Your task to perform on an android device: check data usage Image 0: 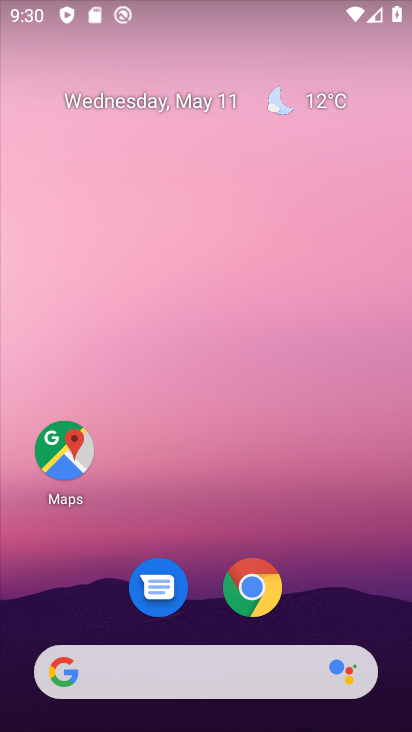
Step 0: drag from (394, 234) to (386, 6)
Your task to perform on an android device: check data usage Image 1: 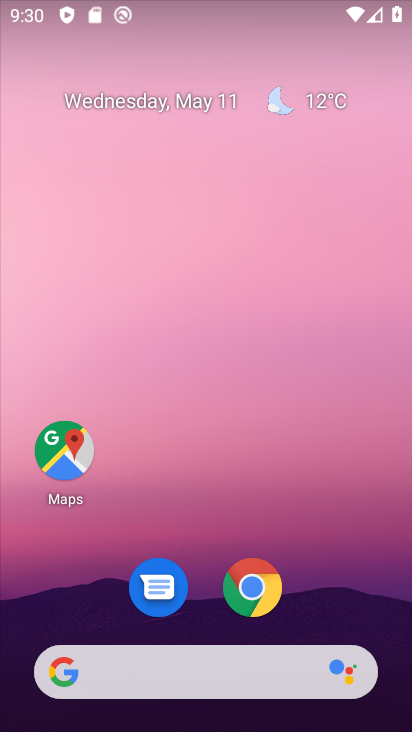
Step 1: drag from (325, 578) to (378, 7)
Your task to perform on an android device: check data usage Image 2: 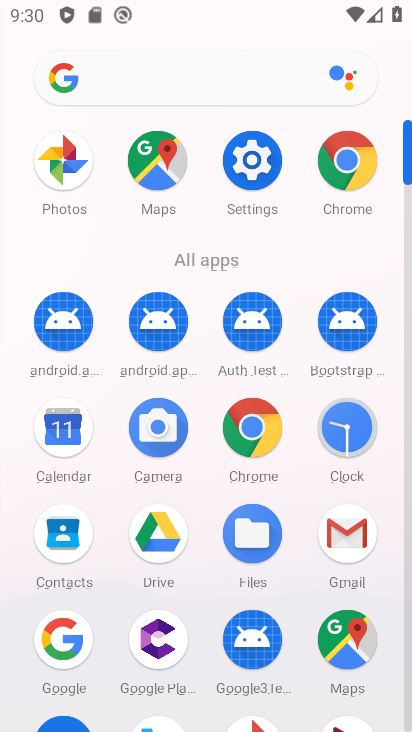
Step 2: click (246, 188)
Your task to perform on an android device: check data usage Image 3: 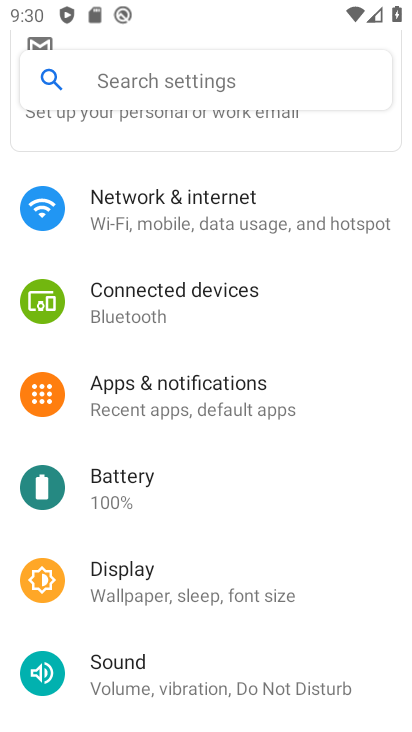
Step 3: click (180, 229)
Your task to perform on an android device: check data usage Image 4: 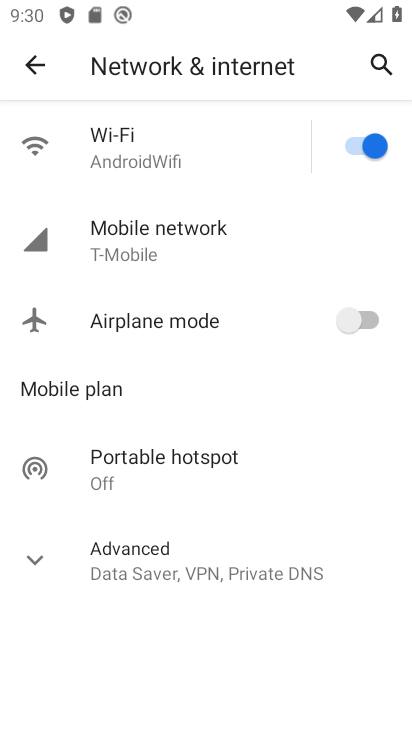
Step 4: click (172, 236)
Your task to perform on an android device: check data usage Image 5: 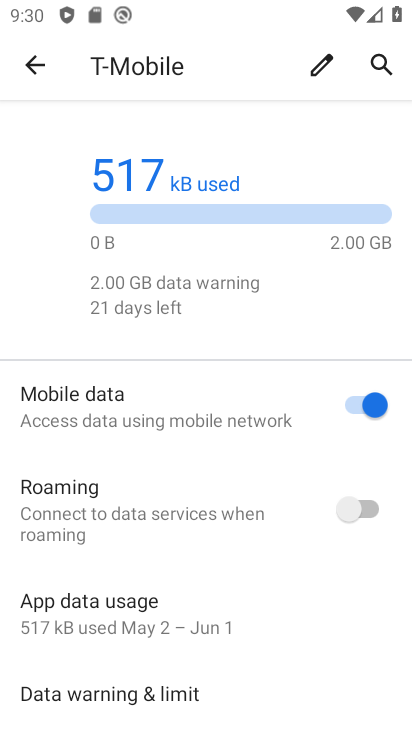
Step 5: click (124, 609)
Your task to perform on an android device: check data usage Image 6: 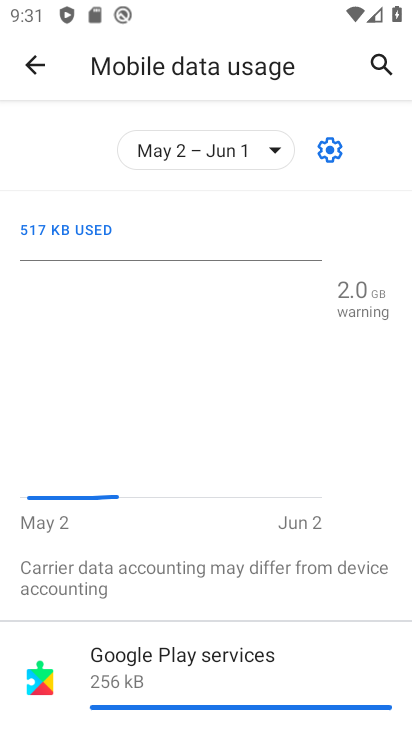
Step 6: task complete